Your task to perform on an android device: turn on the 24-hour format for clock Image 0: 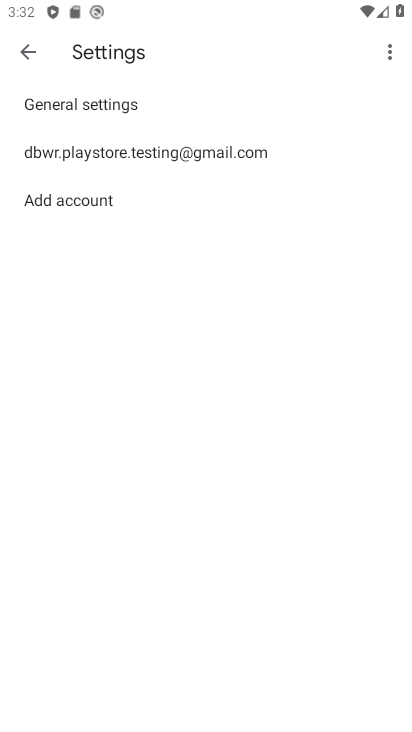
Step 0: press home button
Your task to perform on an android device: turn on the 24-hour format for clock Image 1: 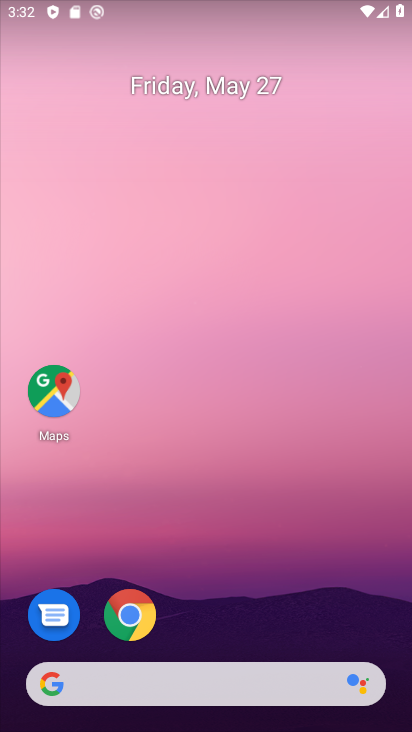
Step 1: drag from (106, 725) to (147, 109)
Your task to perform on an android device: turn on the 24-hour format for clock Image 2: 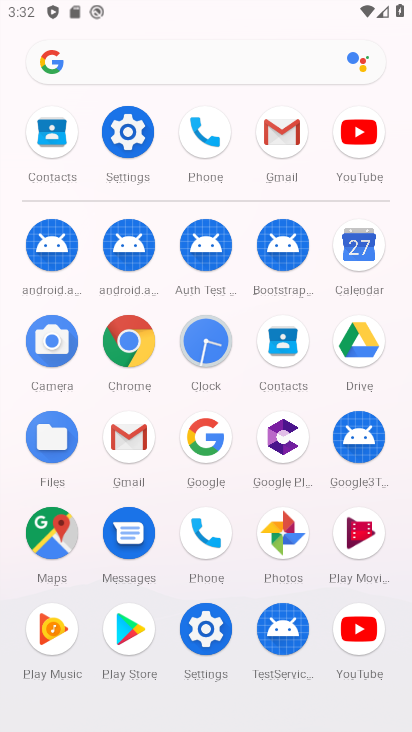
Step 2: click (211, 649)
Your task to perform on an android device: turn on the 24-hour format for clock Image 3: 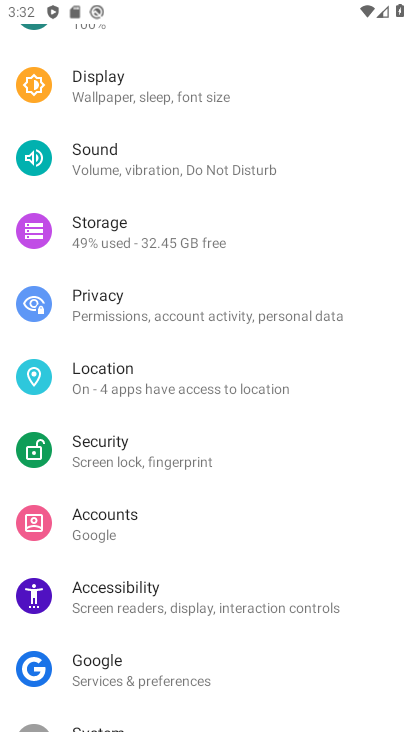
Step 3: drag from (218, 687) to (236, 352)
Your task to perform on an android device: turn on the 24-hour format for clock Image 4: 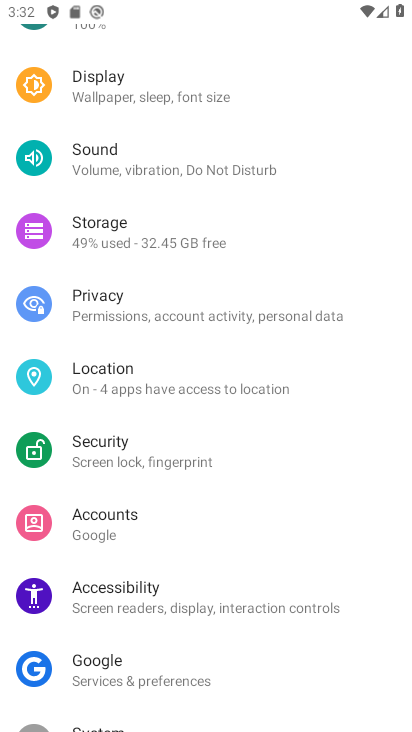
Step 4: drag from (308, 685) to (310, 396)
Your task to perform on an android device: turn on the 24-hour format for clock Image 5: 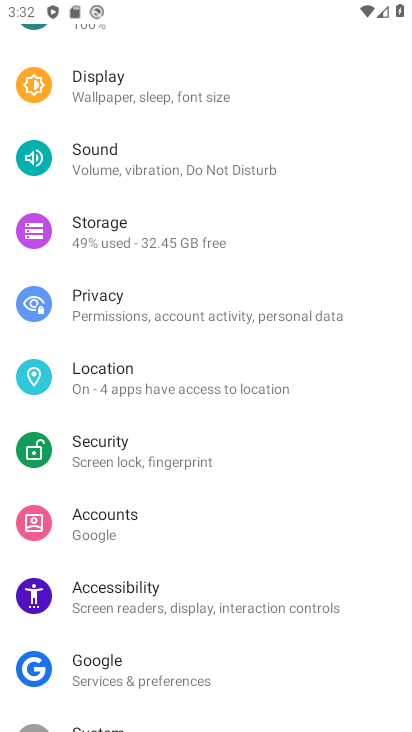
Step 5: drag from (265, 679) to (205, 307)
Your task to perform on an android device: turn on the 24-hour format for clock Image 6: 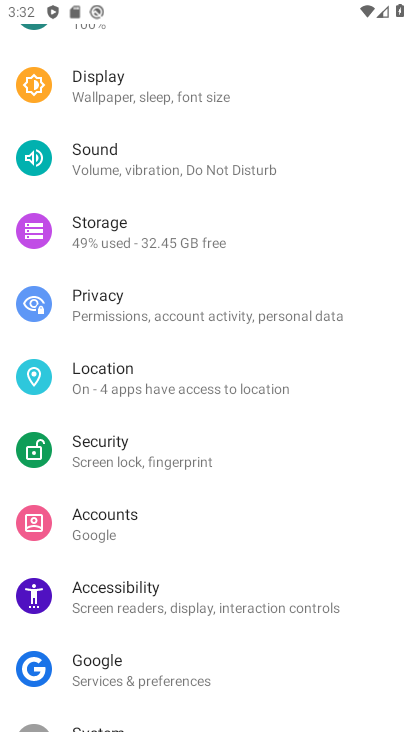
Step 6: drag from (273, 690) to (2, 703)
Your task to perform on an android device: turn on the 24-hour format for clock Image 7: 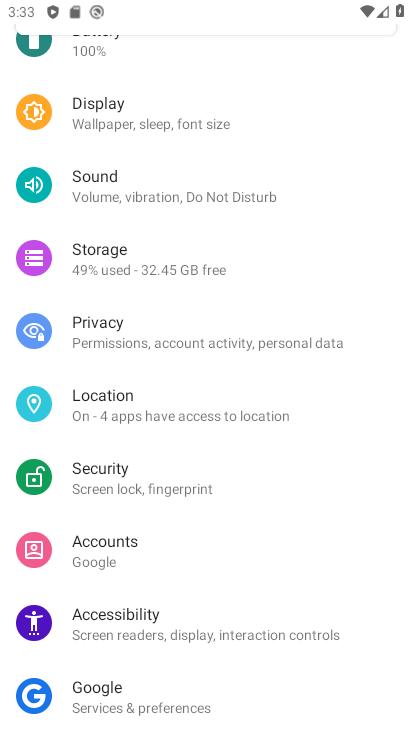
Step 7: drag from (242, 700) to (190, 243)
Your task to perform on an android device: turn on the 24-hour format for clock Image 8: 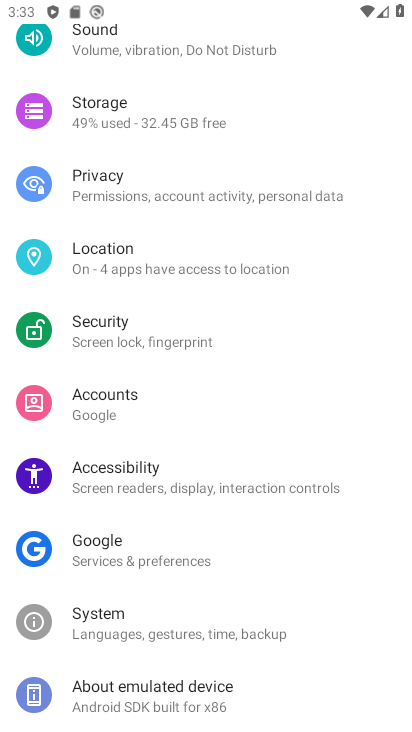
Step 8: click (115, 632)
Your task to perform on an android device: turn on the 24-hour format for clock Image 9: 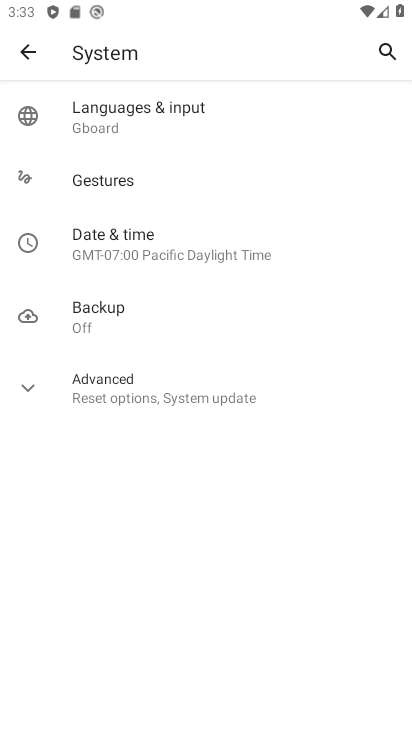
Step 9: click (157, 249)
Your task to perform on an android device: turn on the 24-hour format for clock Image 10: 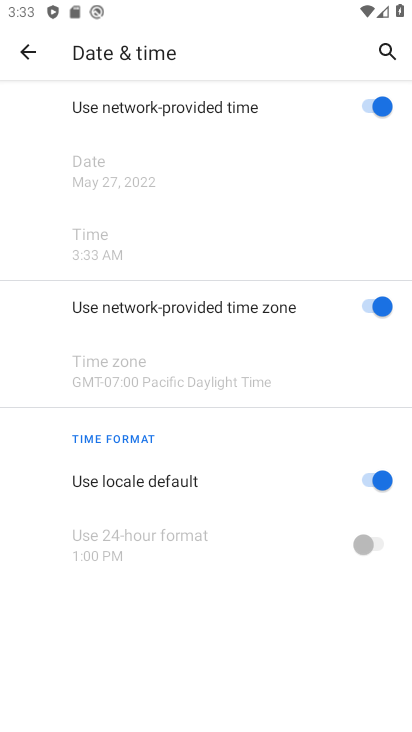
Step 10: click (385, 484)
Your task to perform on an android device: turn on the 24-hour format for clock Image 11: 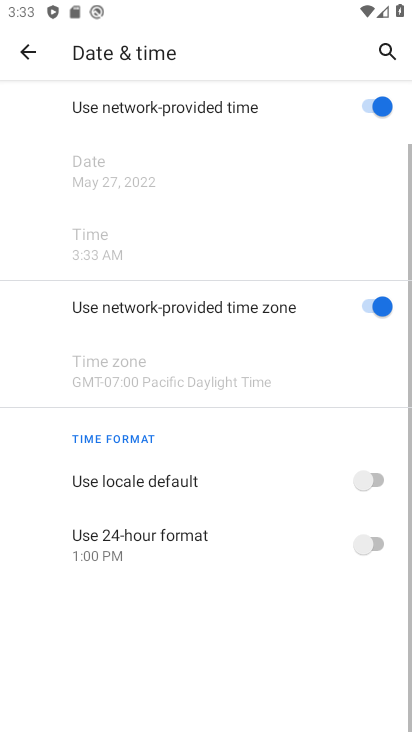
Step 11: click (368, 552)
Your task to perform on an android device: turn on the 24-hour format for clock Image 12: 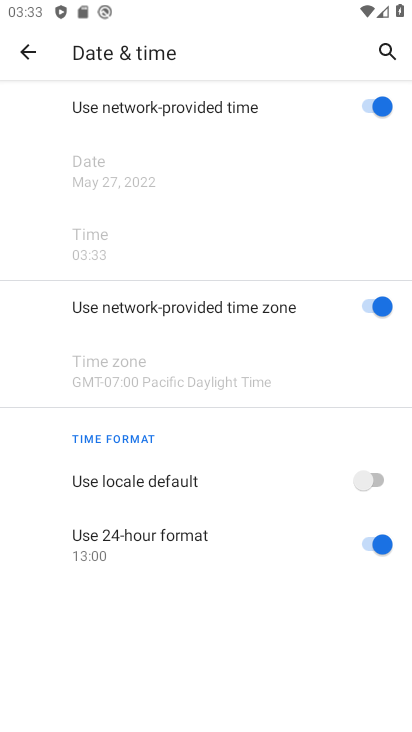
Step 12: task complete